Your task to perform on an android device: change the clock display to digital Image 0: 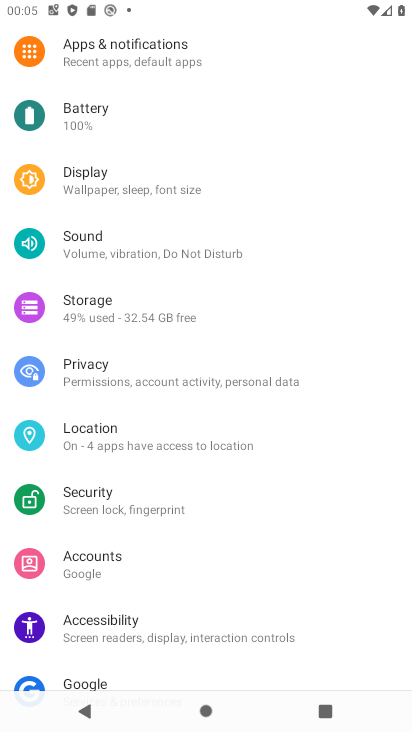
Step 0: press home button
Your task to perform on an android device: change the clock display to digital Image 1: 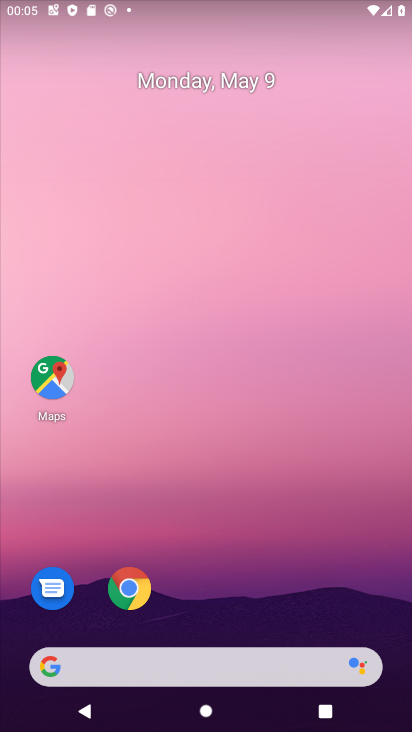
Step 1: drag from (223, 423) to (242, 22)
Your task to perform on an android device: change the clock display to digital Image 2: 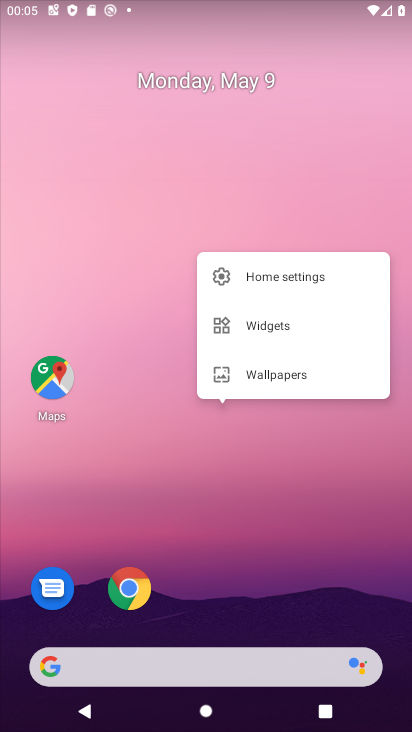
Step 2: click (315, 575)
Your task to perform on an android device: change the clock display to digital Image 3: 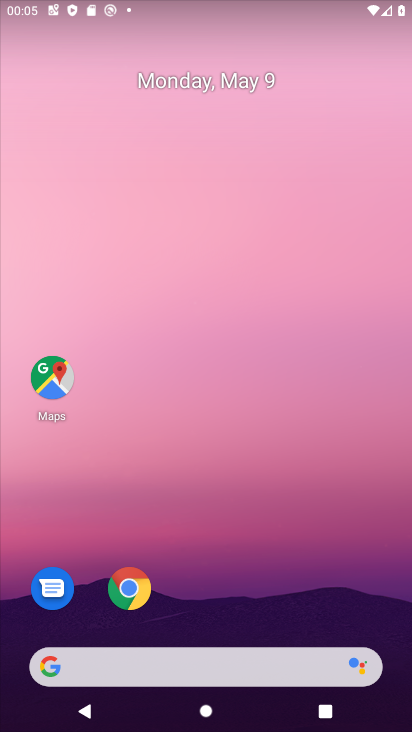
Step 3: drag from (275, 613) to (220, 81)
Your task to perform on an android device: change the clock display to digital Image 4: 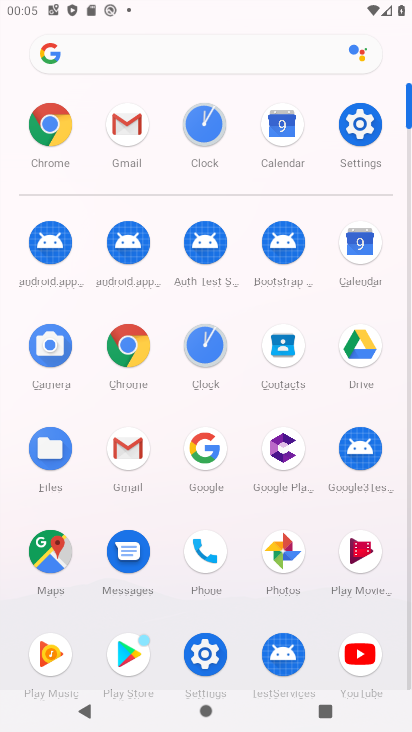
Step 4: click (208, 349)
Your task to perform on an android device: change the clock display to digital Image 5: 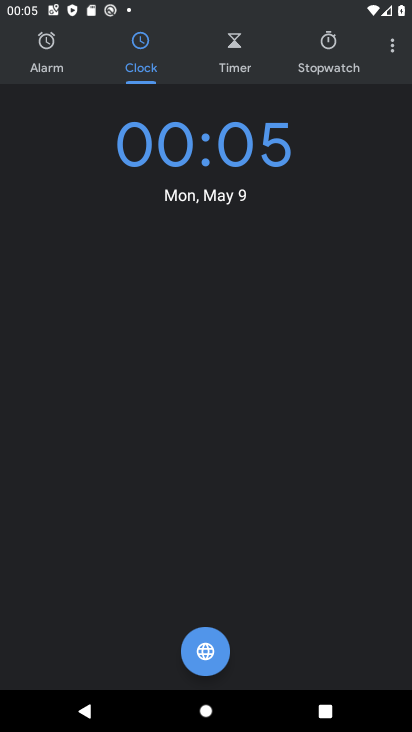
Step 5: click (391, 48)
Your task to perform on an android device: change the clock display to digital Image 6: 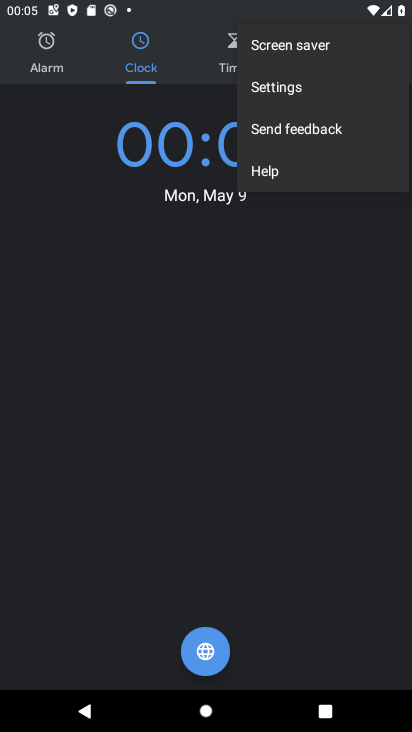
Step 6: click (283, 91)
Your task to perform on an android device: change the clock display to digital Image 7: 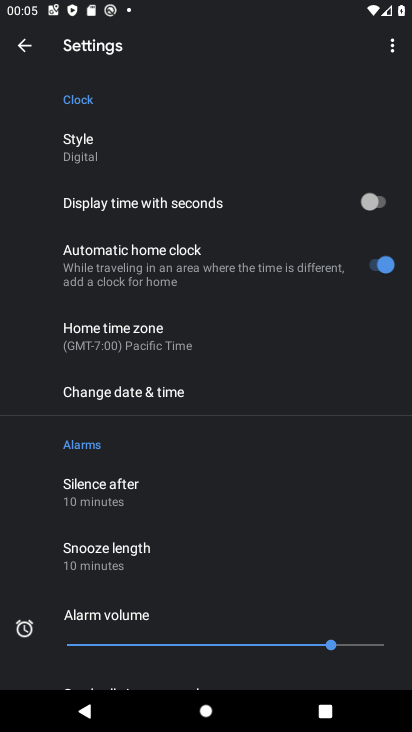
Step 7: task complete